Your task to perform on an android device: turn off location history Image 0: 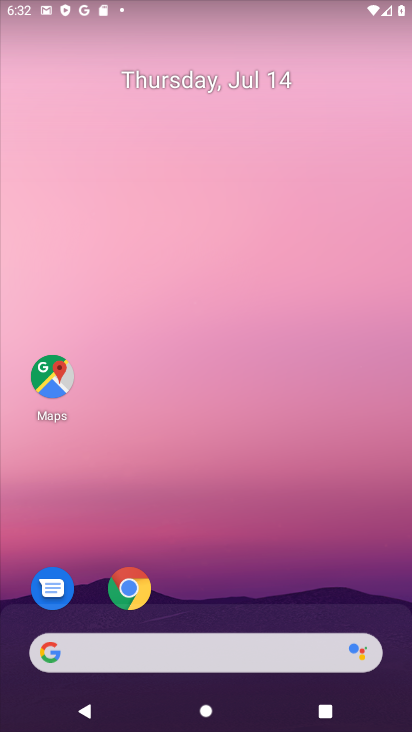
Step 0: click (43, 376)
Your task to perform on an android device: turn off location history Image 1: 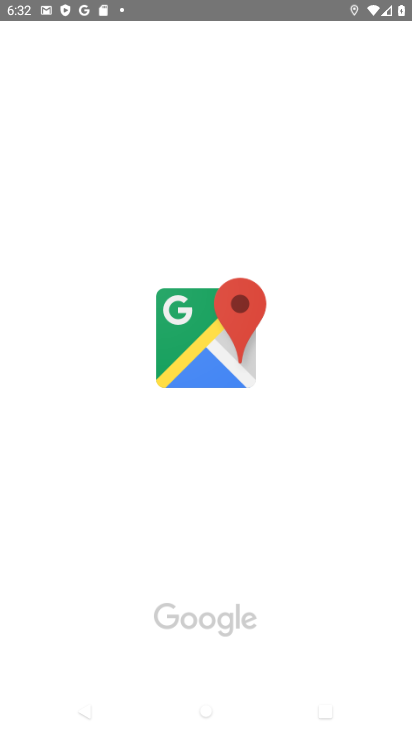
Step 1: click (43, 376)
Your task to perform on an android device: turn off location history Image 2: 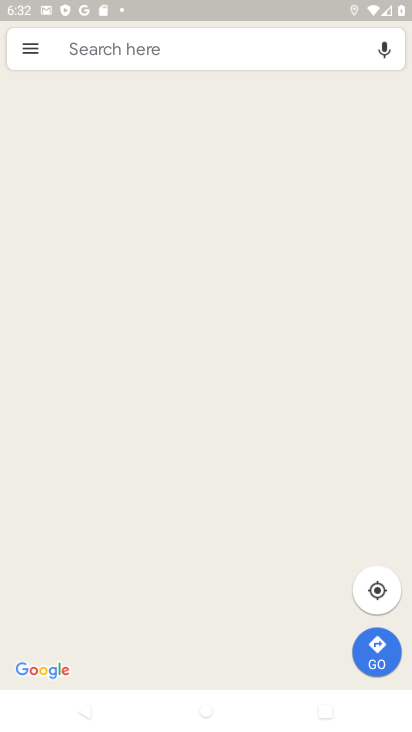
Step 2: click (34, 50)
Your task to perform on an android device: turn off location history Image 3: 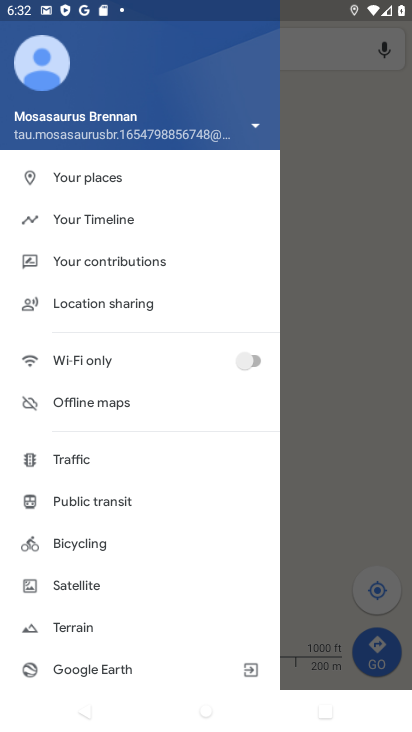
Step 3: click (94, 217)
Your task to perform on an android device: turn off location history Image 4: 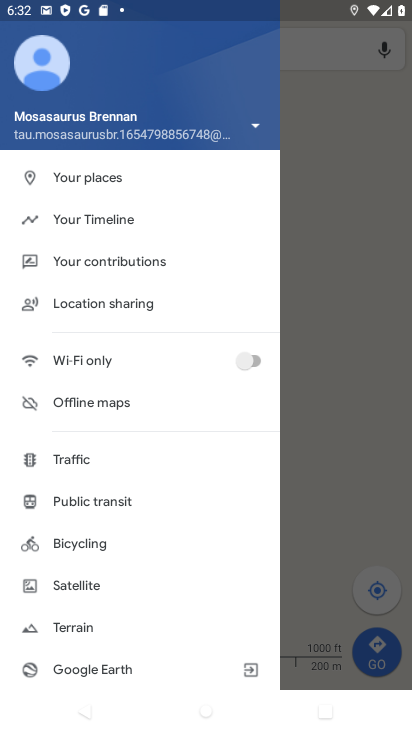
Step 4: click (94, 217)
Your task to perform on an android device: turn off location history Image 5: 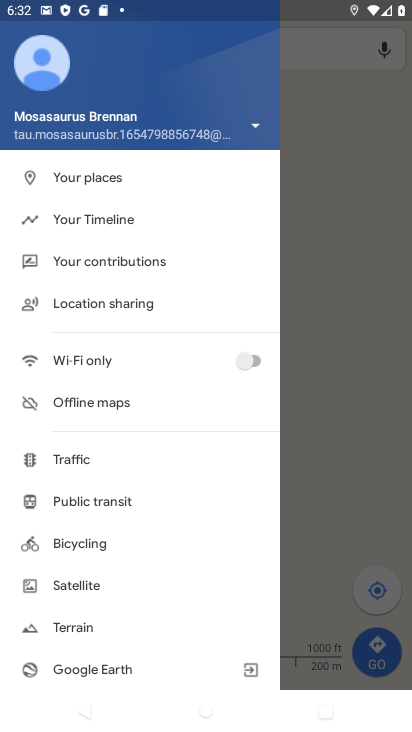
Step 5: click (101, 217)
Your task to perform on an android device: turn off location history Image 6: 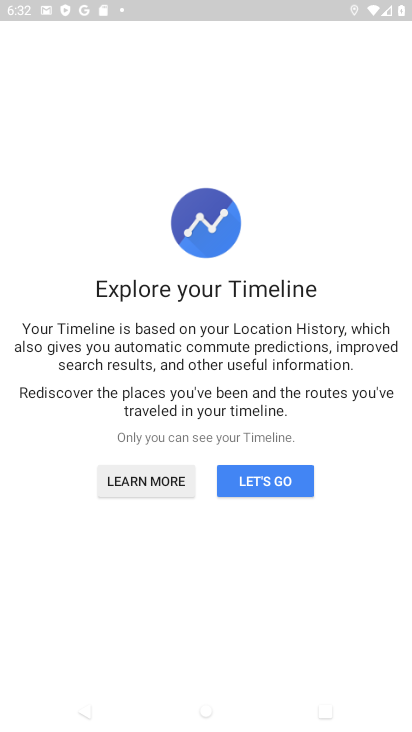
Step 6: click (261, 477)
Your task to perform on an android device: turn off location history Image 7: 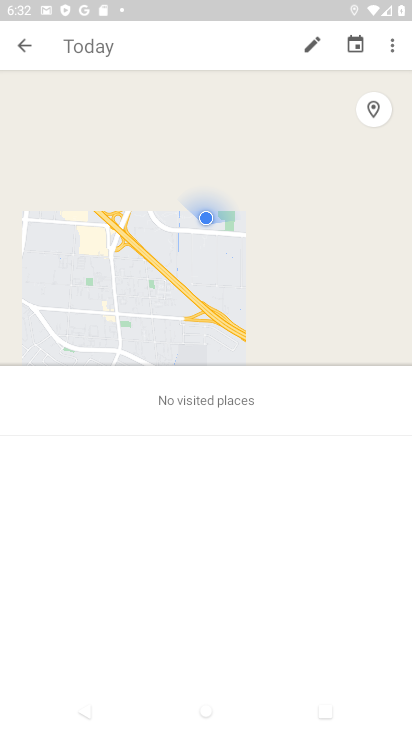
Step 7: click (389, 40)
Your task to perform on an android device: turn off location history Image 8: 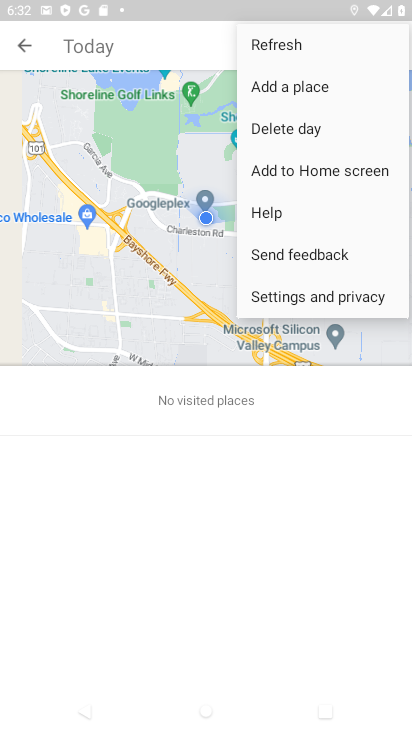
Step 8: click (306, 293)
Your task to perform on an android device: turn off location history Image 9: 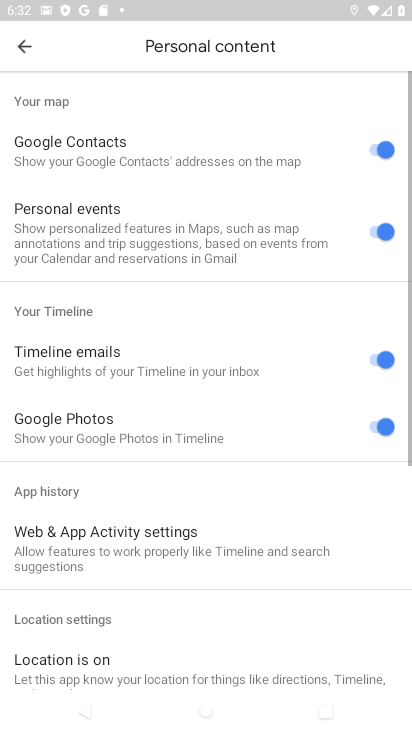
Step 9: drag from (199, 584) to (165, 295)
Your task to perform on an android device: turn off location history Image 10: 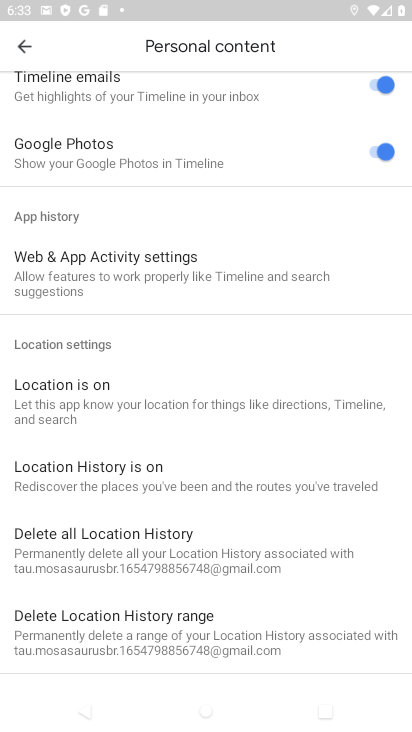
Step 10: click (63, 467)
Your task to perform on an android device: turn off location history Image 11: 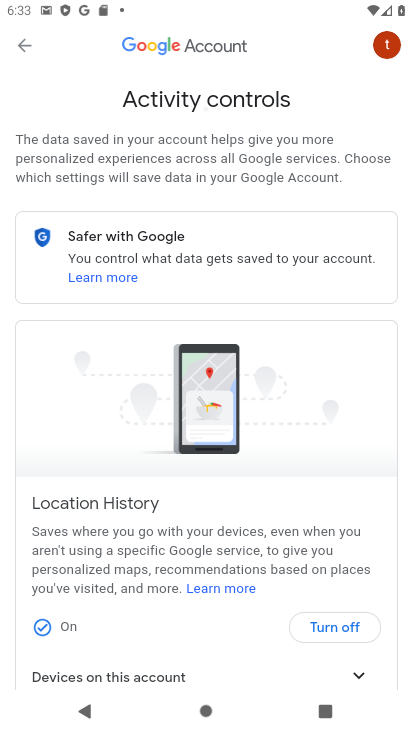
Step 11: click (342, 626)
Your task to perform on an android device: turn off location history Image 12: 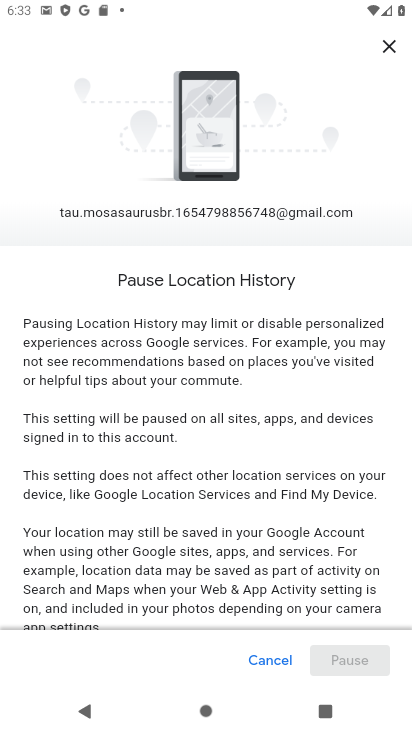
Step 12: drag from (330, 590) to (282, 203)
Your task to perform on an android device: turn off location history Image 13: 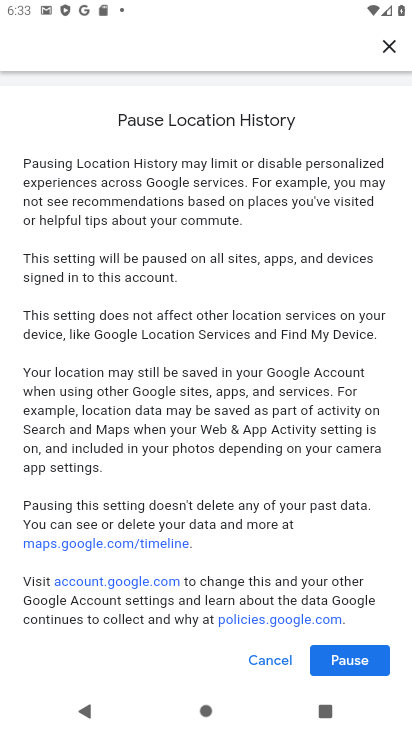
Step 13: drag from (336, 564) to (311, 275)
Your task to perform on an android device: turn off location history Image 14: 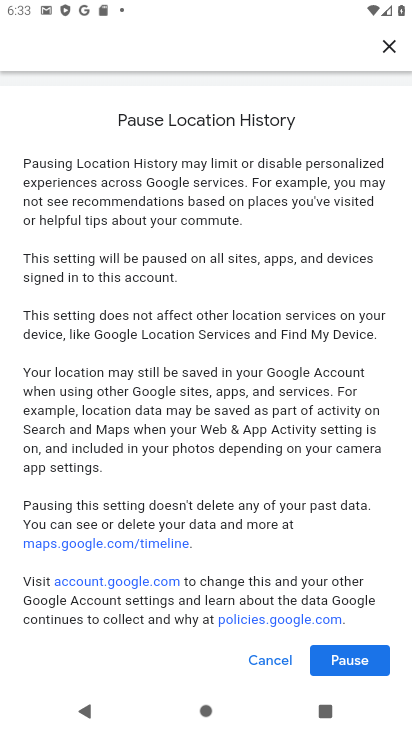
Step 14: click (349, 661)
Your task to perform on an android device: turn off location history Image 15: 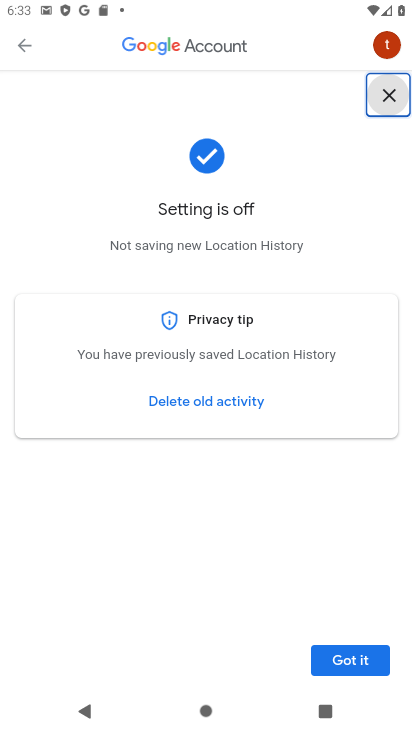
Step 15: click (350, 661)
Your task to perform on an android device: turn off location history Image 16: 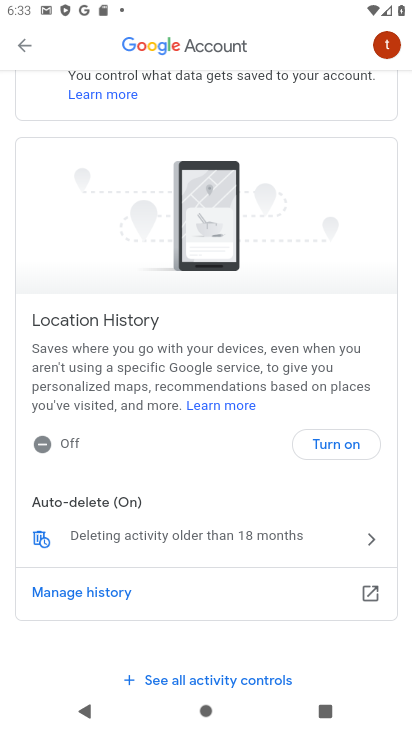
Step 16: task complete